Your task to perform on an android device: change the clock style Image 0: 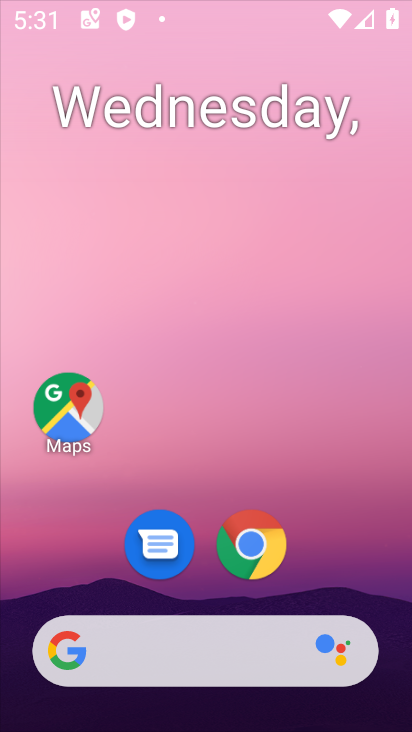
Step 0: click (310, 497)
Your task to perform on an android device: change the clock style Image 1: 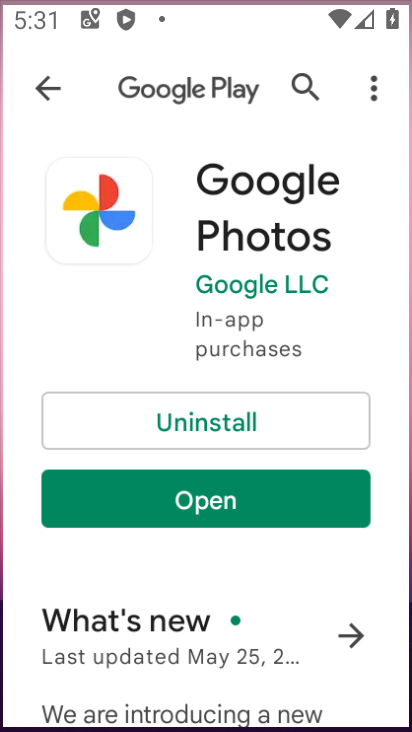
Step 1: drag from (397, 697) to (378, 76)
Your task to perform on an android device: change the clock style Image 2: 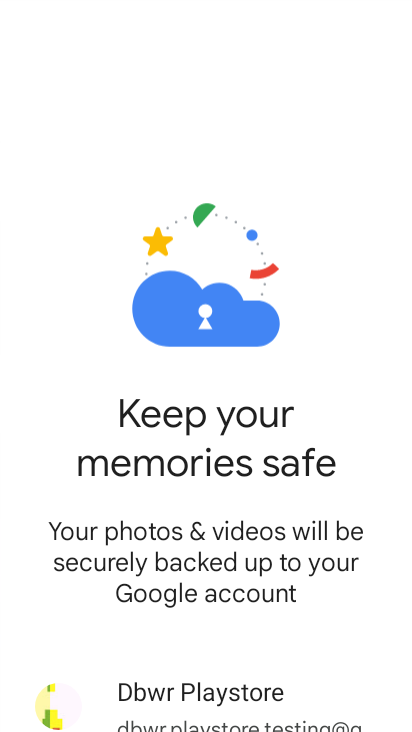
Step 2: press home button
Your task to perform on an android device: change the clock style Image 3: 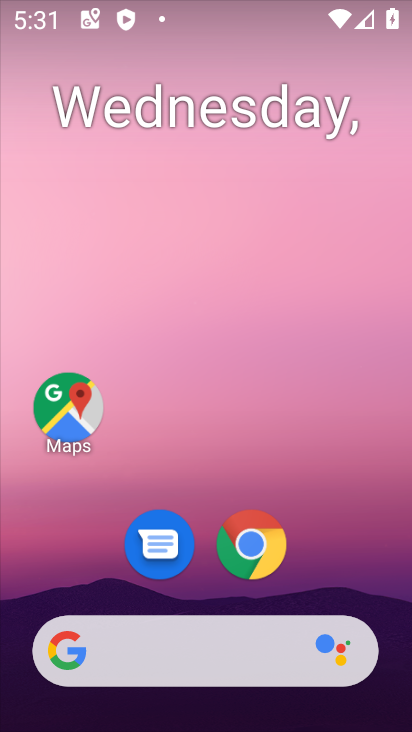
Step 3: drag from (395, 631) to (331, 87)
Your task to perform on an android device: change the clock style Image 4: 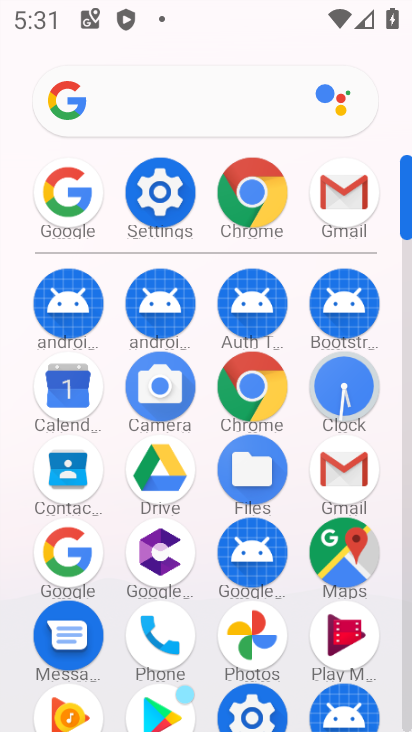
Step 4: click (337, 397)
Your task to perform on an android device: change the clock style Image 5: 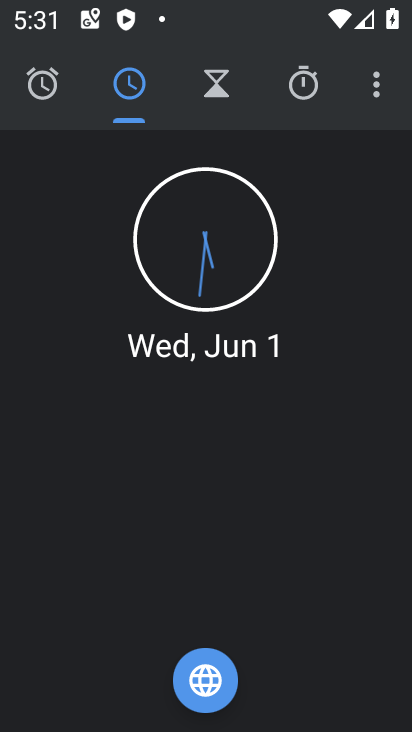
Step 5: click (372, 82)
Your task to perform on an android device: change the clock style Image 6: 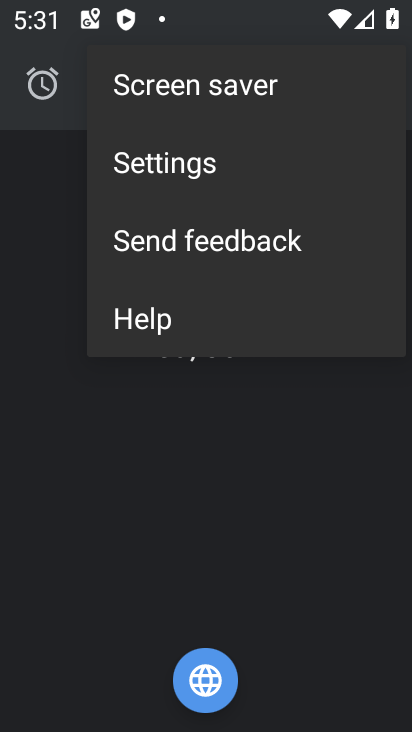
Step 6: click (150, 172)
Your task to perform on an android device: change the clock style Image 7: 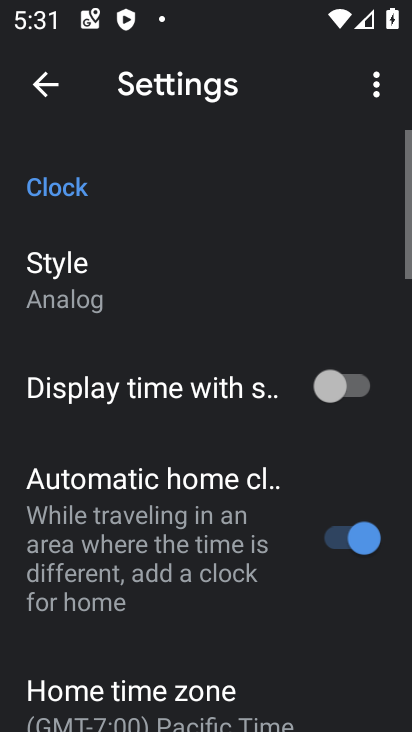
Step 7: click (58, 294)
Your task to perform on an android device: change the clock style Image 8: 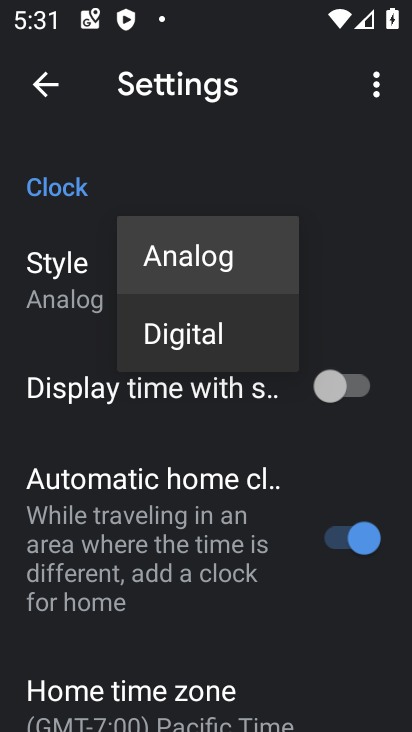
Step 8: click (175, 343)
Your task to perform on an android device: change the clock style Image 9: 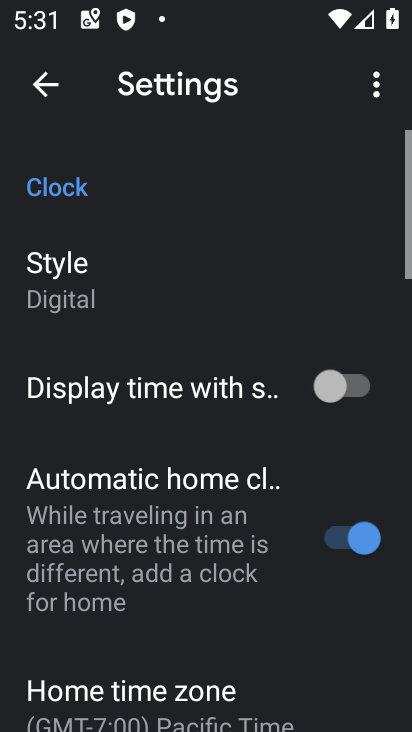
Step 9: task complete